Your task to perform on an android device: change timer sound Image 0: 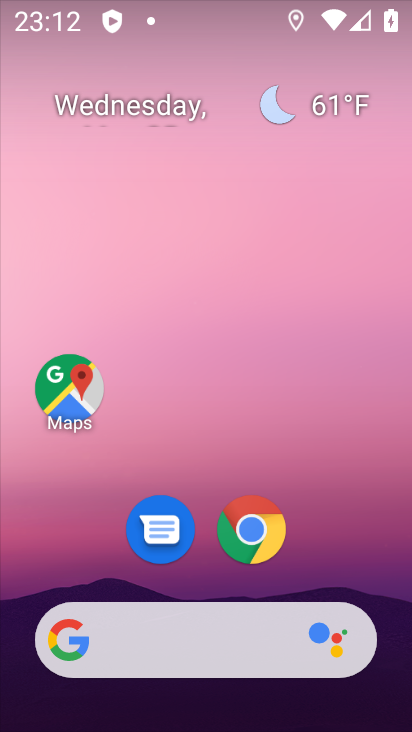
Step 0: drag from (378, 570) to (408, 299)
Your task to perform on an android device: change timer sound Image 1: 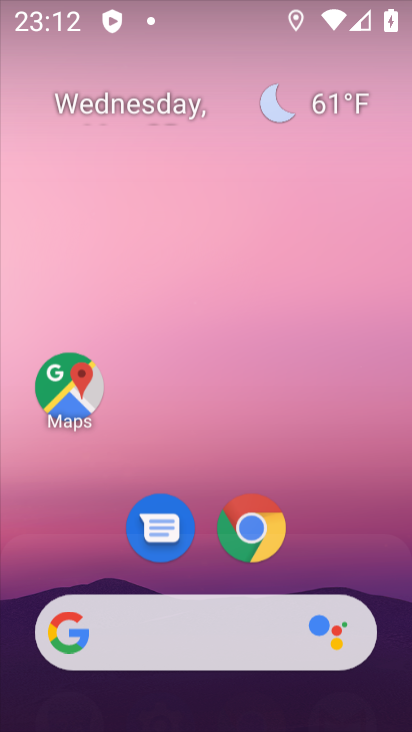
Step 1: drag from (378, 278) to (389, 59)
Your task to perform on an android device: change timer sound Image 2: 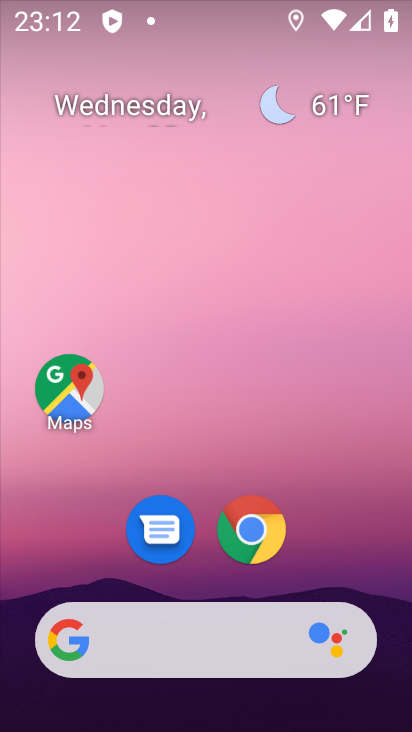
Step 2: drag from (334, 528) to (343, 44)
Your task to perform on an android device: change timer sound Image 3: 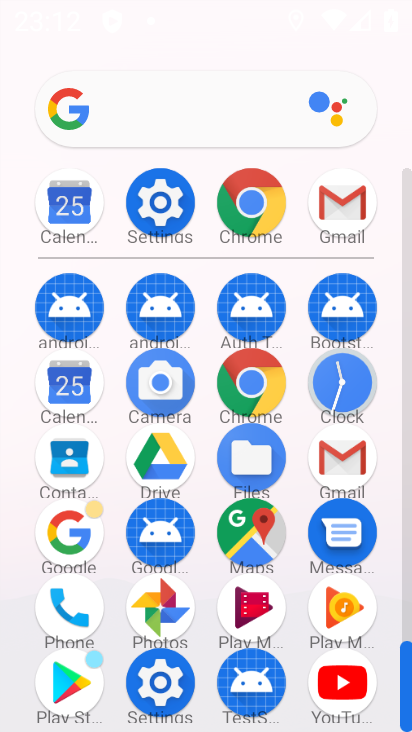
Step 3: click (350, 392)
Your task to perform on an android device: change timer sound Image 4: 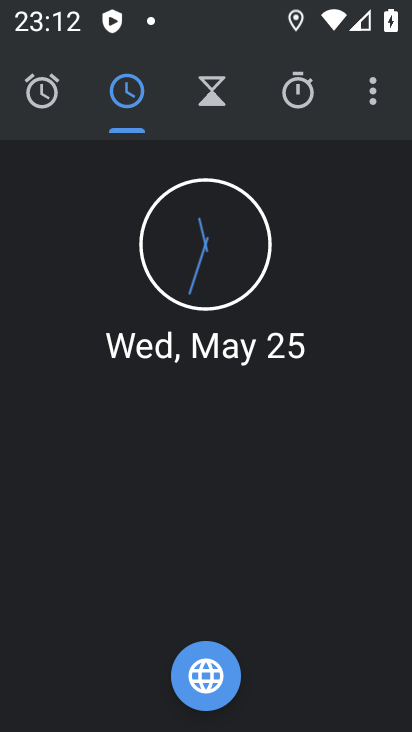
Step 4: click (376, 101)
Your task to perform on an android device: change timer sound Image 5: 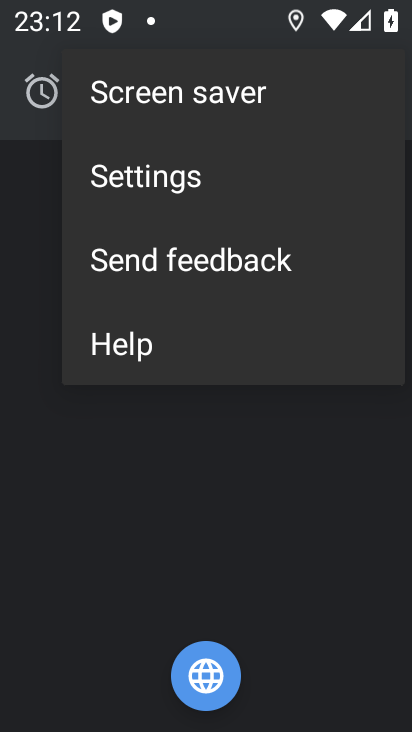
Step 5: click (206, 185)
Your task to perform on an android device: change timer sound Image 6: 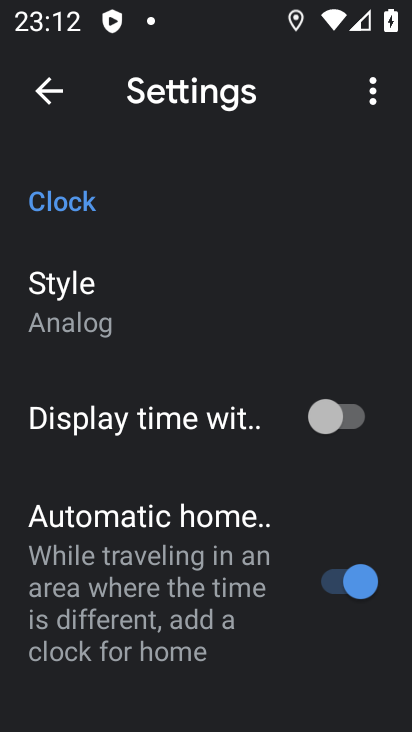
Step 6: drag from (270, 463) to (281, 379)
Your task to perform on an android device: change timer sound Image 7: 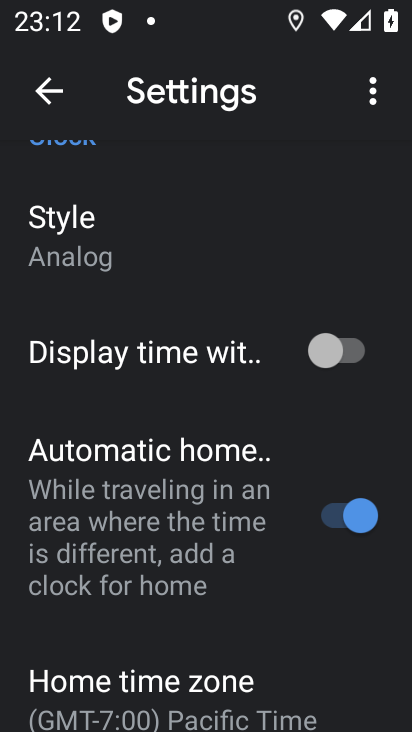
Step 7: drag from (303, 544) to (295, 428)
Your task to perform on an android device: change timer sound Image 8: 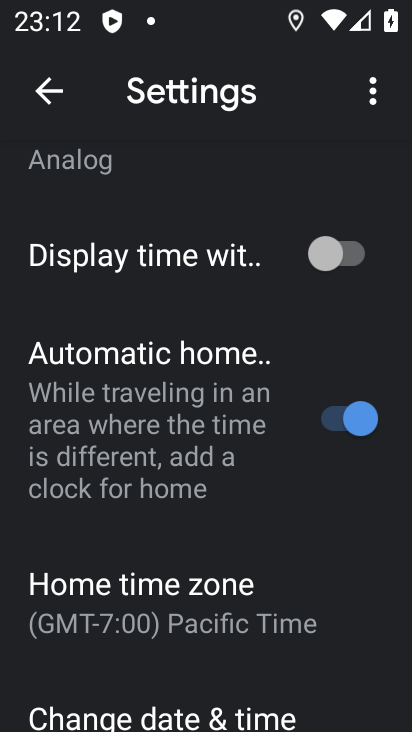
Step 8: drag from (292, 552) to (280, 462)
Your task to perform on an android device: change timer sound Image 9: 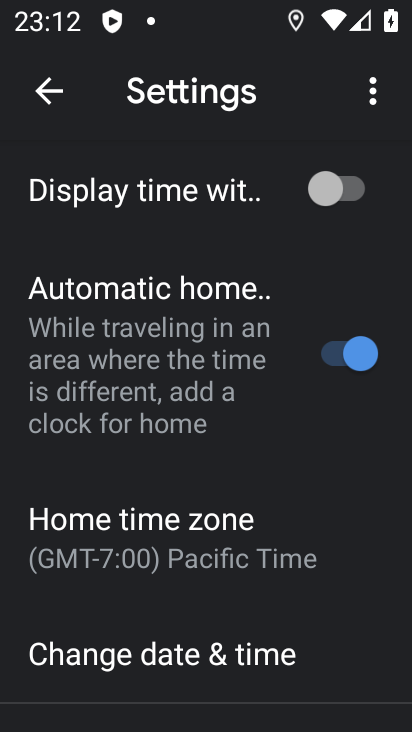
Step 9: drag from (307, 589) to (304, 465)
Your task to perform on an android device: change timer sound Image 10: 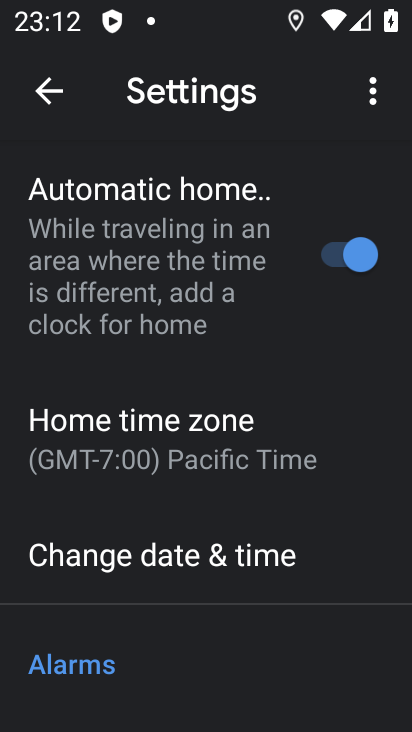
Step 10: drag from (315, 577) to (342, 490)
Your task to perform on an android device: change timer sound Image 11: 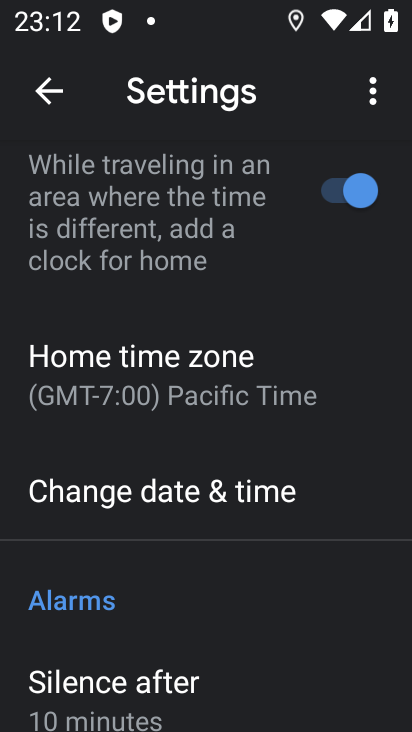
Step 11: drag from (321, 629) to (324, 533)
Your task to perform on an android device: change timer sound Image 12: 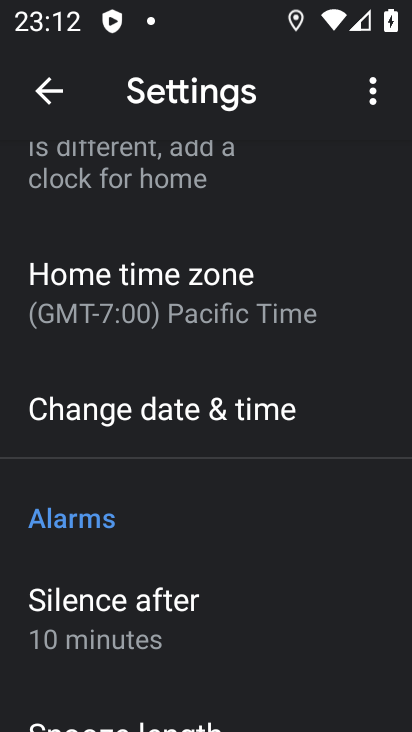
Step 12: drag from (327, 611) to (323, 496)
Your task to perform on an android device: change timer sound Image 13: 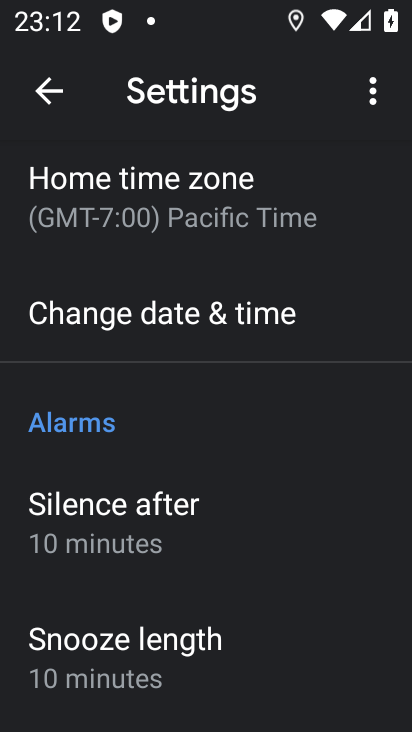
Step 13: drag from (316, 613) to (312, 477)
Your task to perform on an android device: change timer sound Image 14: 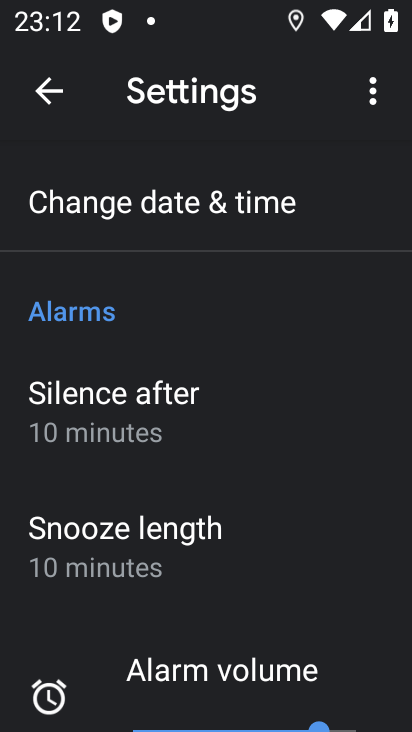
Step 14: drag from (318, 583) to (320, 456)
Your task to perform on an android device: change timer sound Image 15: 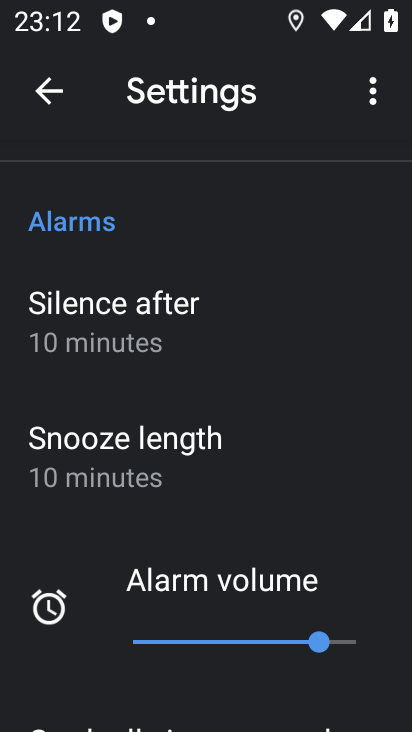
Step 15: drag from (324, 600) to (329, 479)
Your task to perform on an android device: change timer sound Image 16: 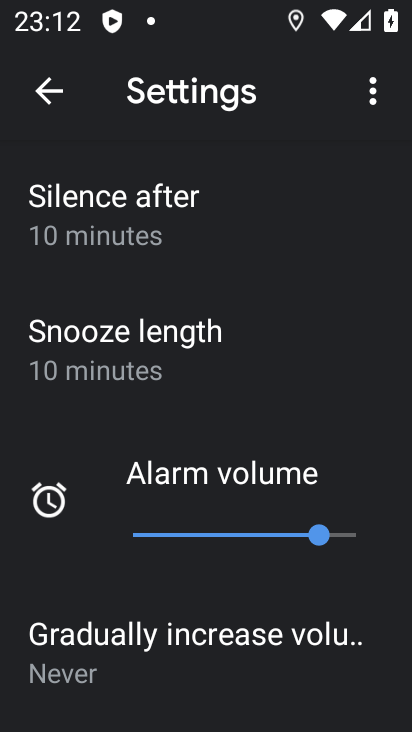
Step 16: drag from (335, 655) to (359, 481)
Your task to perform on an android device: change timer sound Image 17: 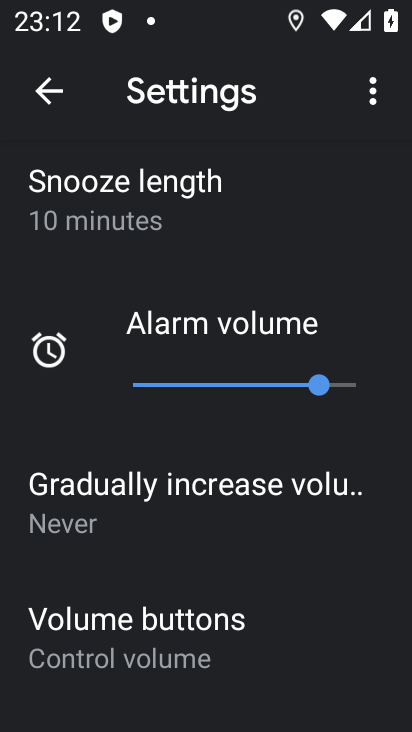
Step 17: drag from (345, 605) to (354, 505)
Your task to perform on an android device: change timer sound Image 18: 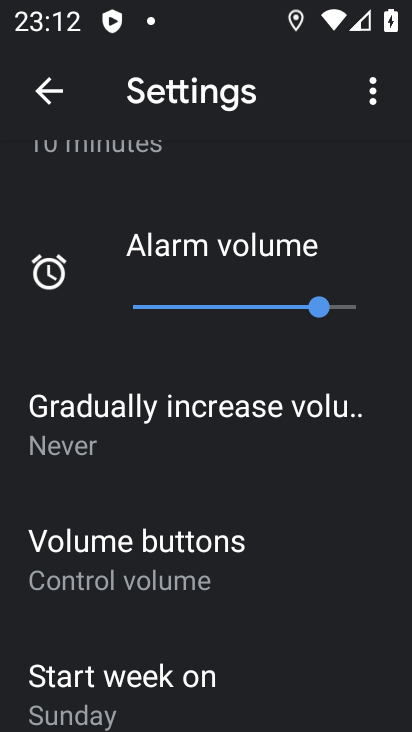
Step 18: drag from (332, 618) to (332, 488)
Your task to perform on an android device: change timer sound Image 19: 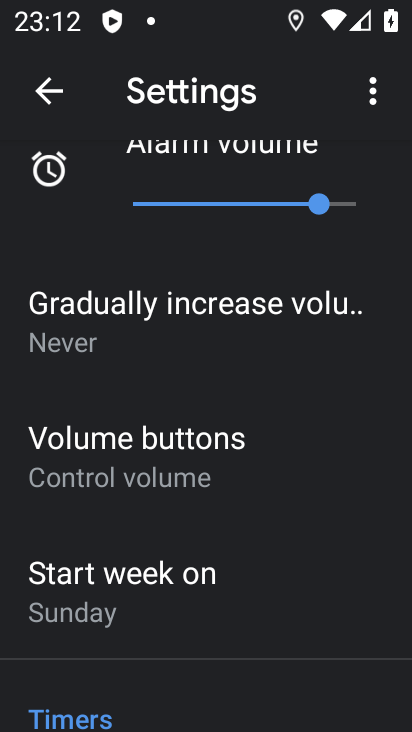
Step 19: drag from (340, 630) to (343, 528)
Your task to perform on an android device: change timer sound Image 20: 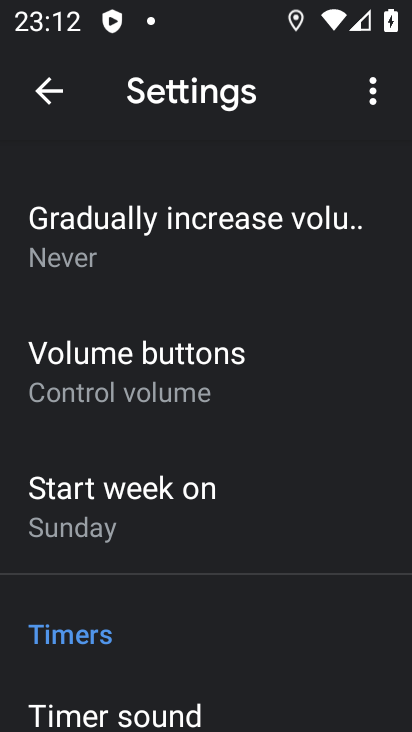
Step 20: drag from (317, 656) to (308, 519)
Your task to perform on an android device: change timer sound Image 21: 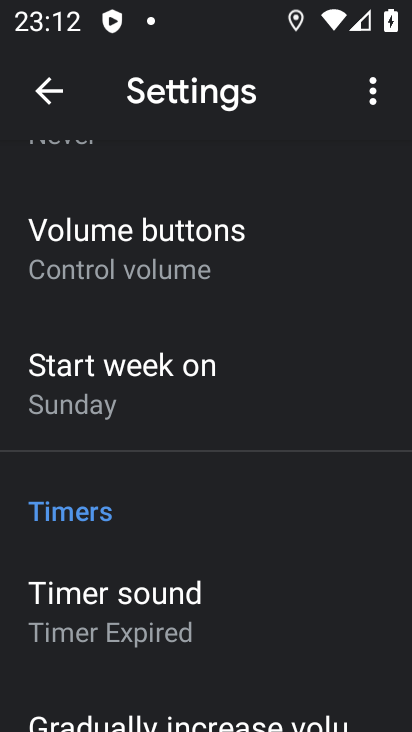
Step 21: drag from (253, 628) to (292, 508)
Your task to perform on an android device: change timer sound Image 22: 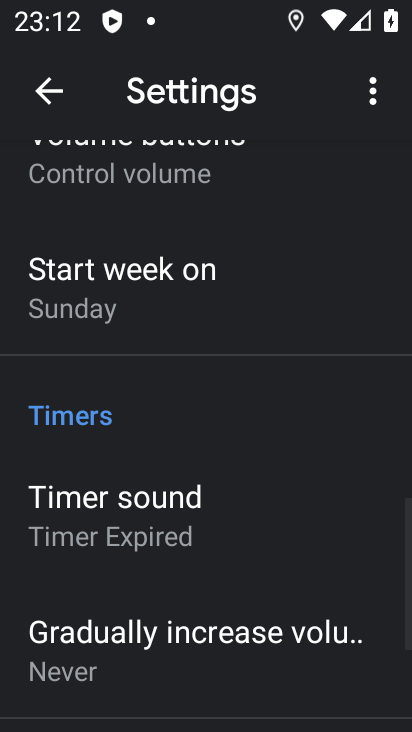
Step 22: click (170, 523)
Your task to perform on an android device: change timer sound Image 23: 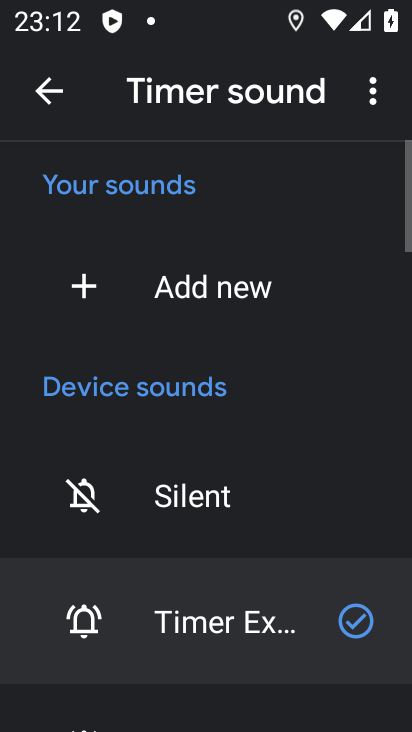
Step 23: click (177, 516)
Your task to perform on an android device: change timer sound Image 24: 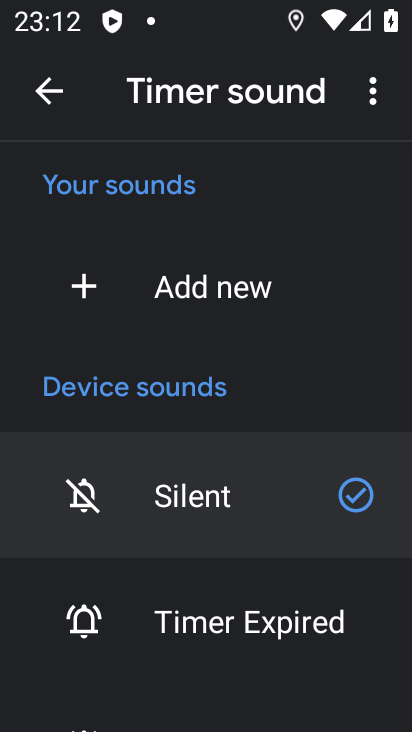
Step 24: task complete